Your task to perform on an android device: turn off improve location accuracy Image 0: 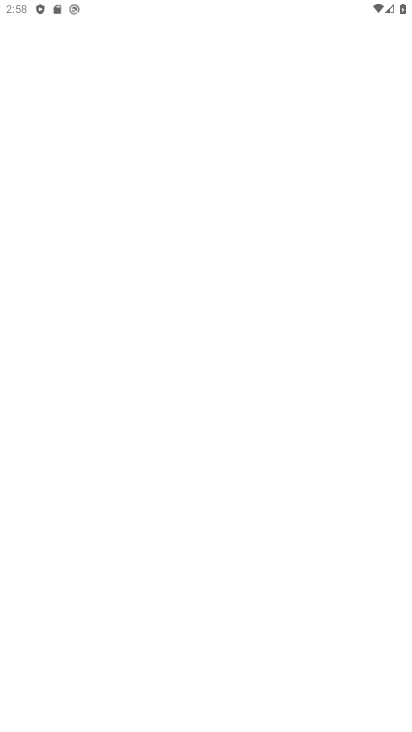
Step 0: press home button
Your task to perform on an android device: turn off improve location accuracy Image 1: 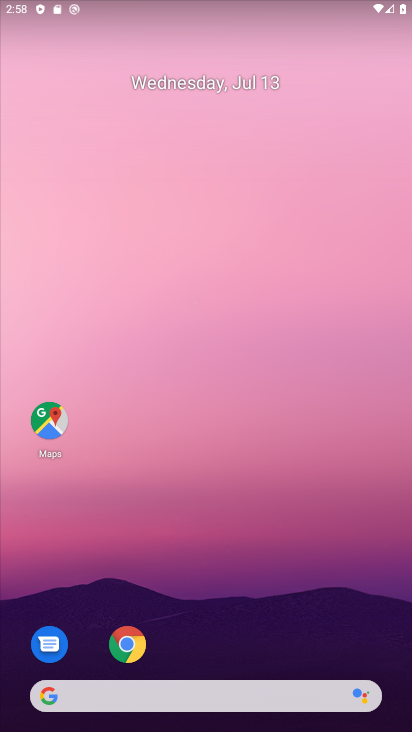
Step 1: drag from (232, 648) to (117, 1)
Your task to perform on an android device: turn off improve location accuracy Image 2: 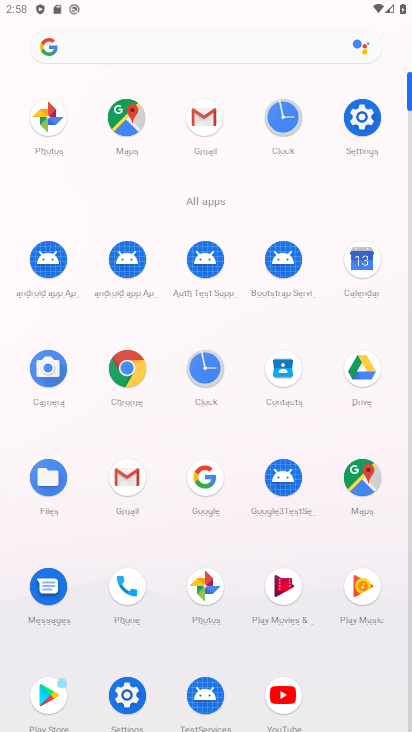
Step 2: click (363, 121)
Your task to perform on an android device: turn off improve location accuracy Image 3: 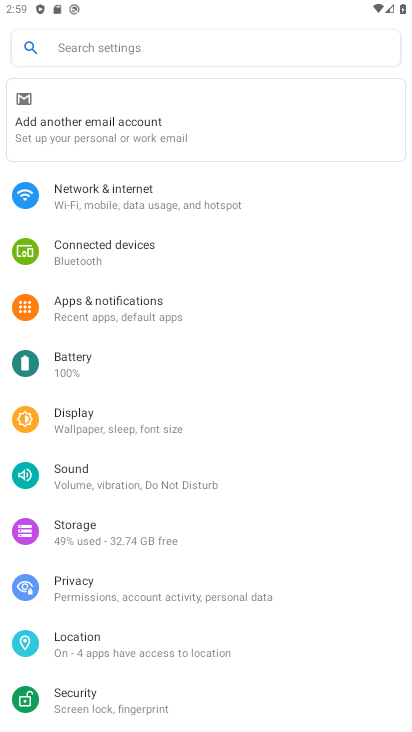
Step 3: click (219, 661)
Your task to perform on an android device: turn off improve location accuracy Image 4: 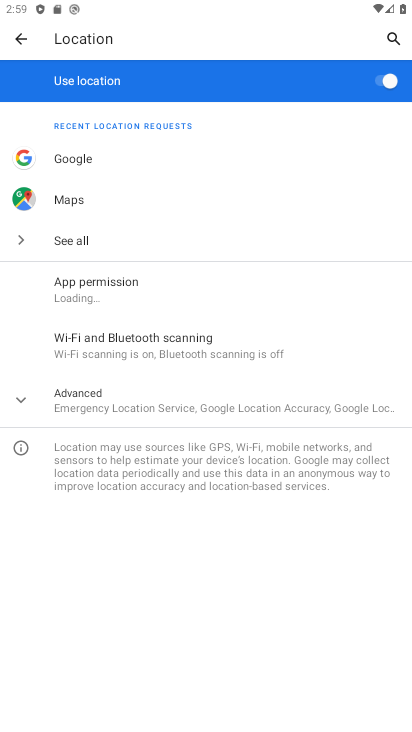
Step 4: click (371, 403)
Your task to perform on an android device: turn off improve location accuracy Image 5: 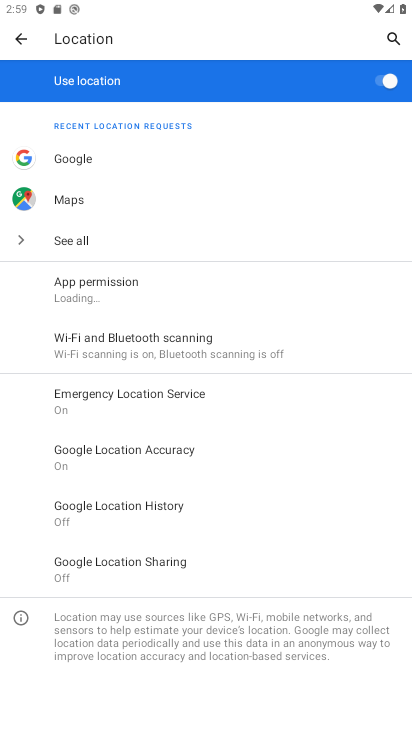
Step 5: click (242, 447)
Your task to perform on an android device: turn off improve location accuracy Image 6: 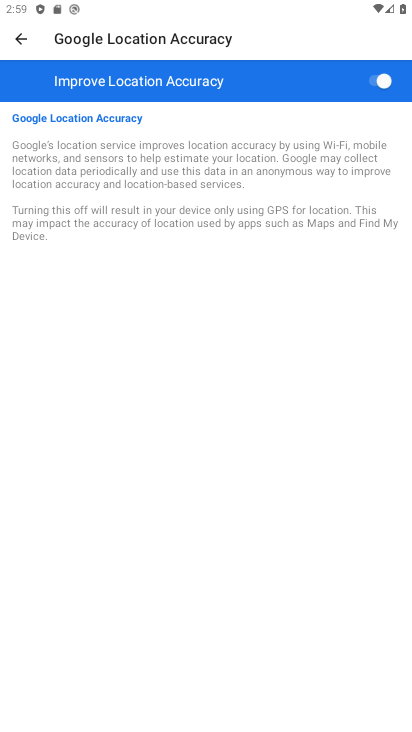
Step 6: click (374, 80)
Your task to perform on an android device: turn off improve location accuracy Image 7: 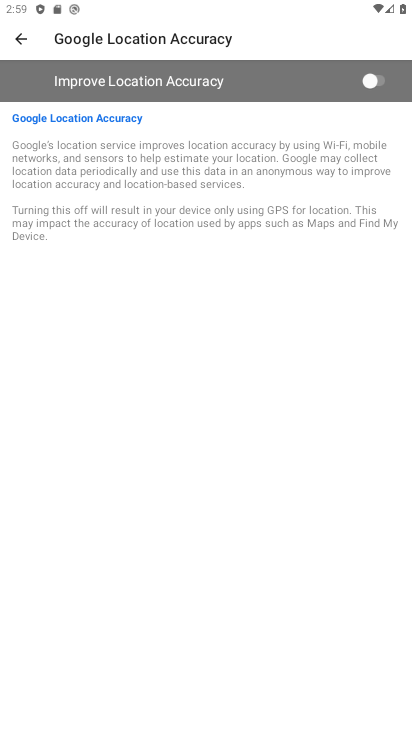
Step 7: task complete